Your task to perform on an android device: Open CNN.com Image 0: 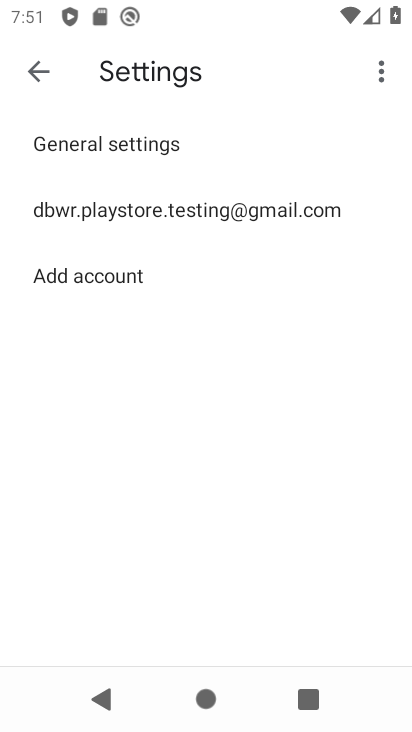
Step 0: press home button
Your task to perform on an android device: Open CNN.com Image 1: 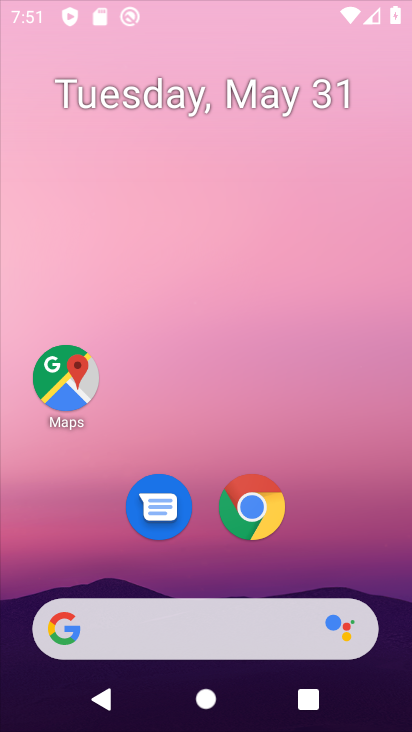
Step 1: drag from (30, 650) to (320, 217)
Your task to perform on an android device: Open CNN.com Image 2: 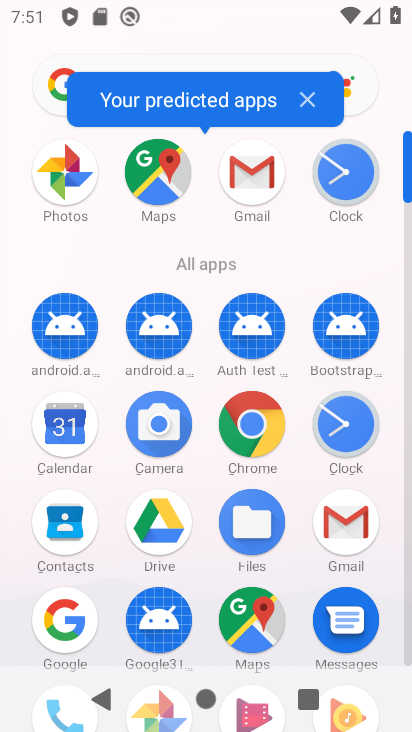
Step 2: click (247, 422)
Your task to perform on an android device: Open CNN.com Image 3: 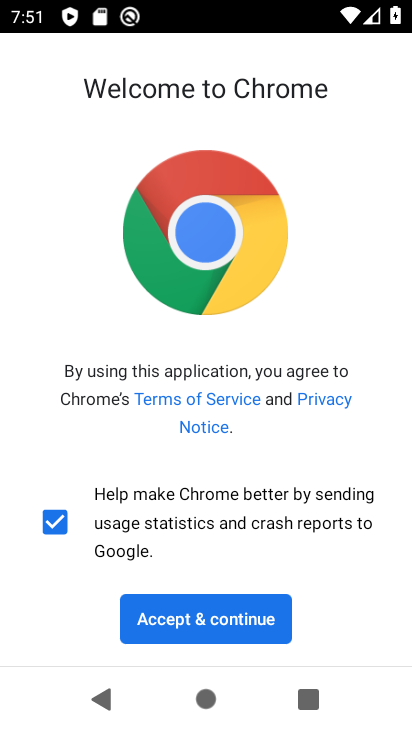
Step 3: click (187, 620)
Your task to perform on an android device: Open CNN.com Image 4: 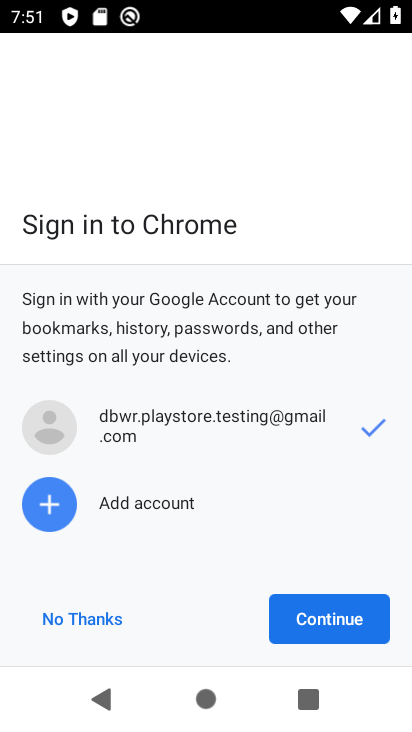
Step 4: click (73, 615)
Your task to perform on an android device: Open CNN.com Image 5: 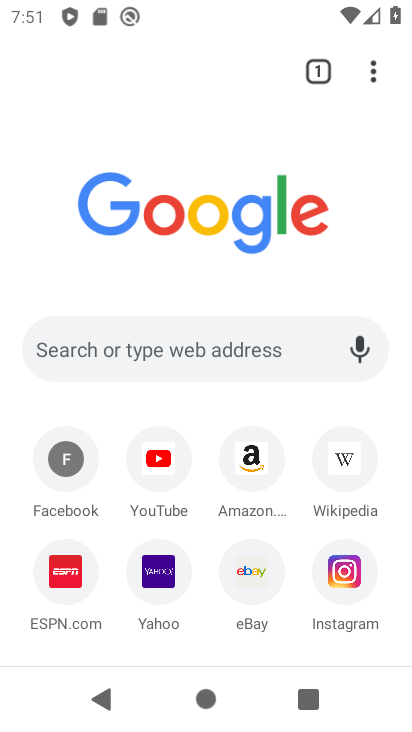
Step 5: click (271, 363)
Your task to perform on an android device: Open CNN.com Image 6: 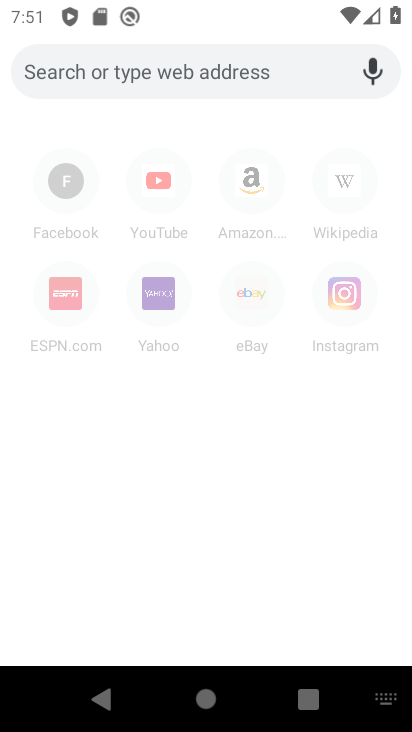
Step 6: type "CNN.com"
Your task to perform on an android device: Open CNN.com Image 7: 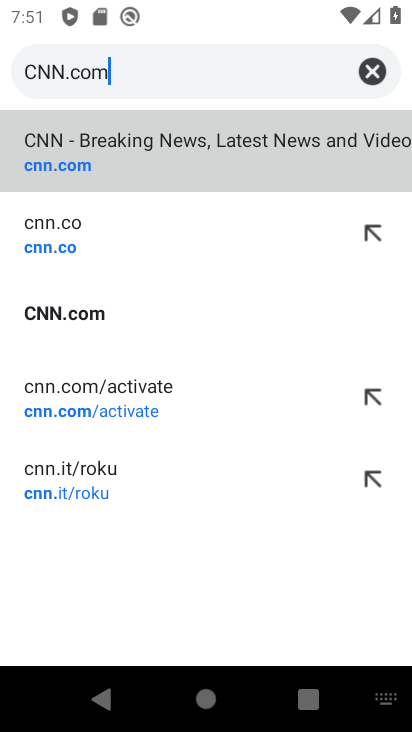
Step 7: type ""
Your task to perform on an android device: Open CNN.com Image 8: 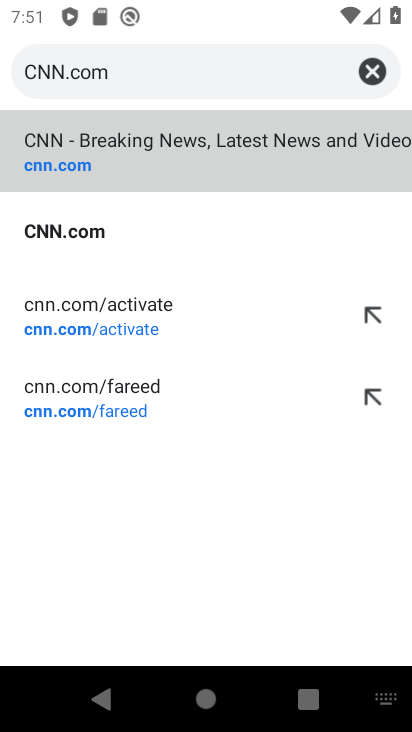
Step 8: click (124, 139)
Your task to perform on an android device: Open CNN.com Image 9: 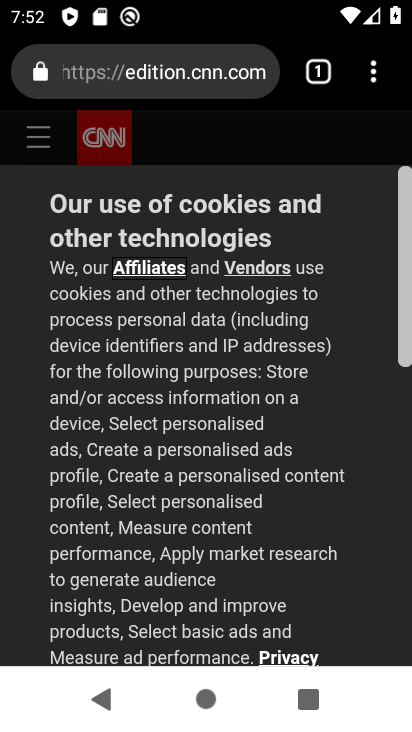
Step 9: task complete